Your task to perform on an android device: Go to accessibility settings Image 0: 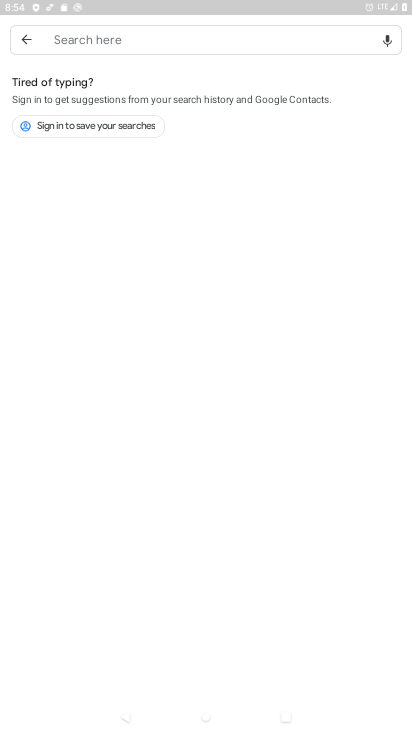
Step 0: press home button
Your task to perform on an android device: Go to accessibility settings Image 1: 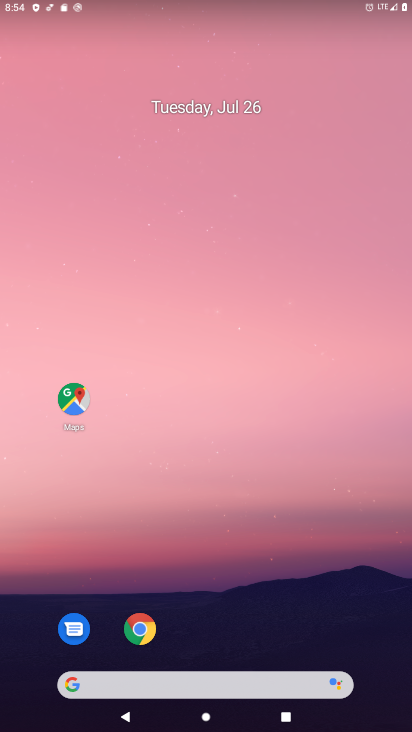
Step 1: drag from (216, 649) to (226, 134)
Your task to perform on an android device: Go to accessibility settings Image 2: 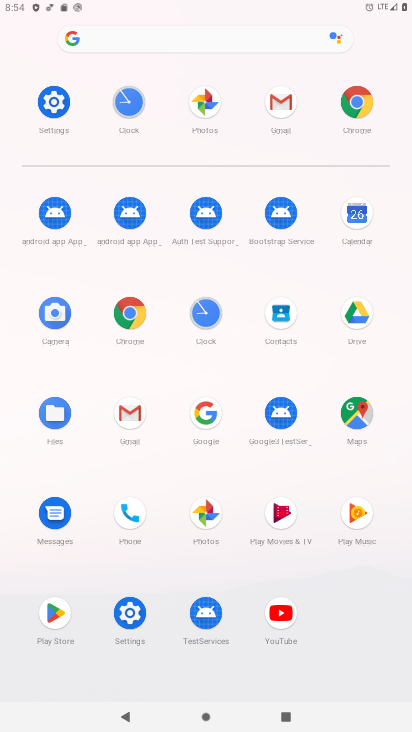
Step 2: click (57, 117)
Your task to perform on an android device: Go to accessibility settings Image 3: 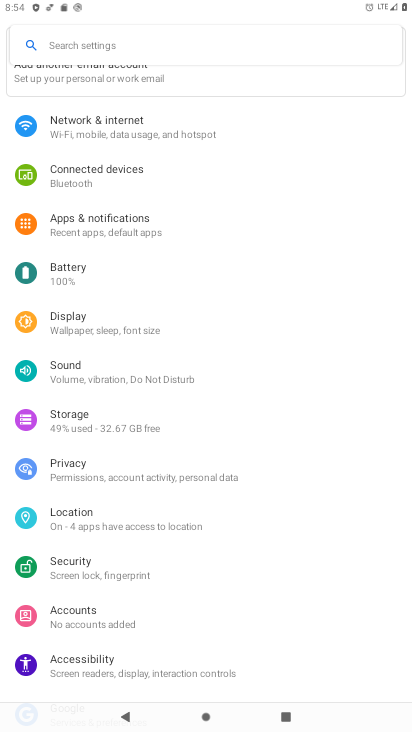
Step 3: click (119, 649)
Your task to perform on an android device: Go to accessibility settings Image 4: 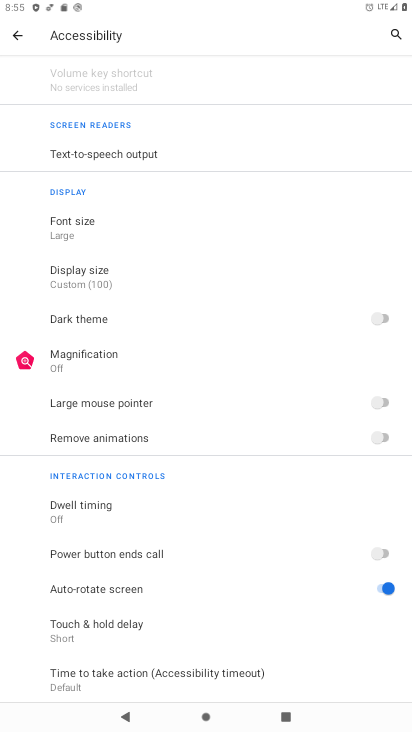
Step 4: task complete